Your task to perform on an android device: toggle data saver in the chrome app Image 0: 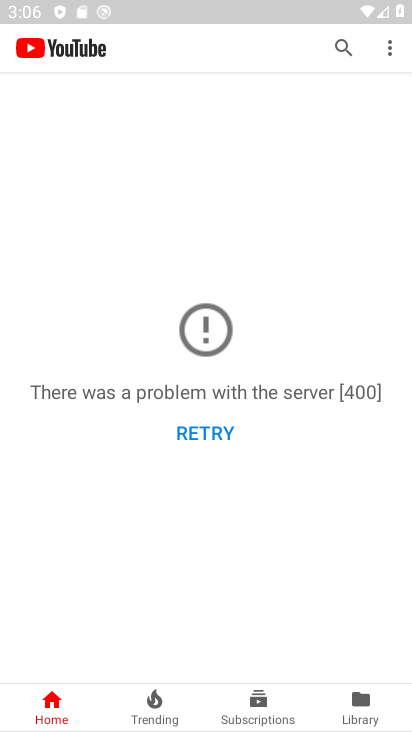
Step 0: press home button
Your task to perform on an android device: toggle data saver in the chrome app Image 1: 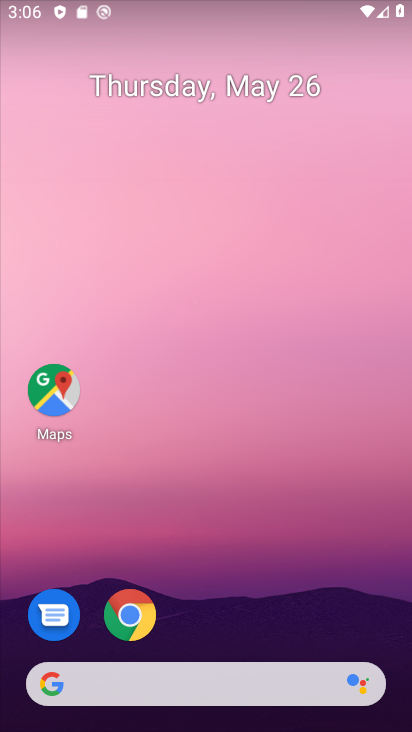
Step 1: click (128, 618)
Your task to perform on an android device: toggle data saver in the chrome app Image 2: 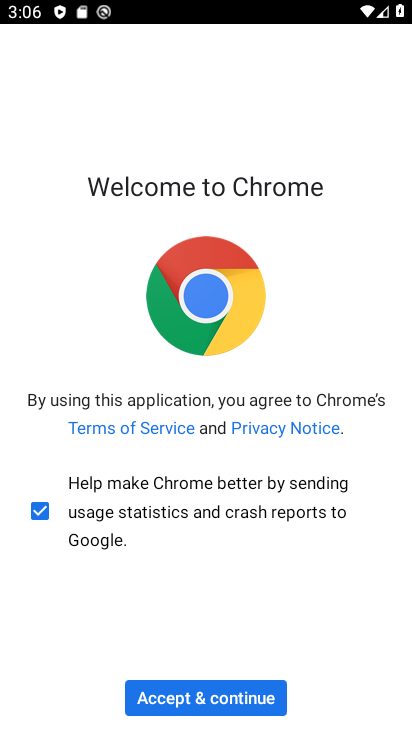
Step 2: click (250, 702)
Your task to perform on an android device: toggle data saver in the chrome app Image 3: 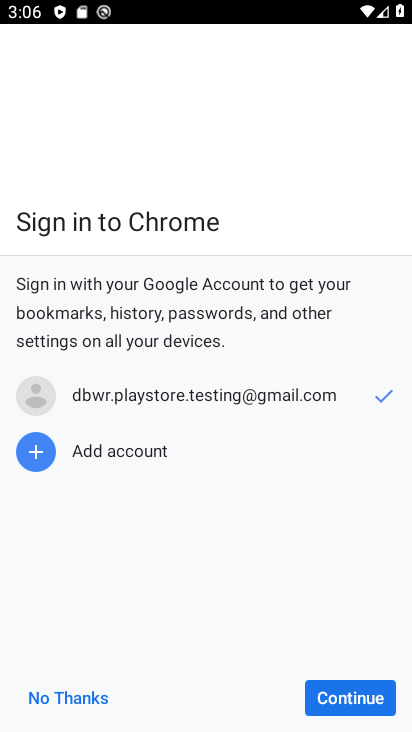
Step 3: click (346, 708)
Your task to perform on an android device: toggle data saver in the chrome app Image 4: 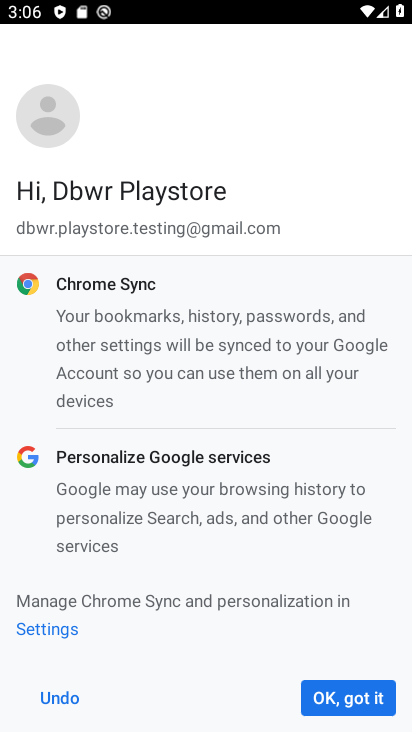
Step 4: click (370, 702)
Your task to perform on an android device: toggle data saver in the chrome app Image 5: 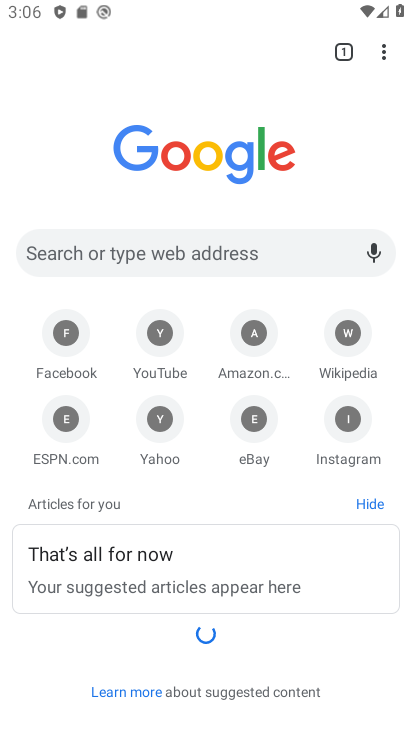
Step 5: click (383, 46)
Your task to perform on an android device: toggle data saver in the chrome app Image 6: 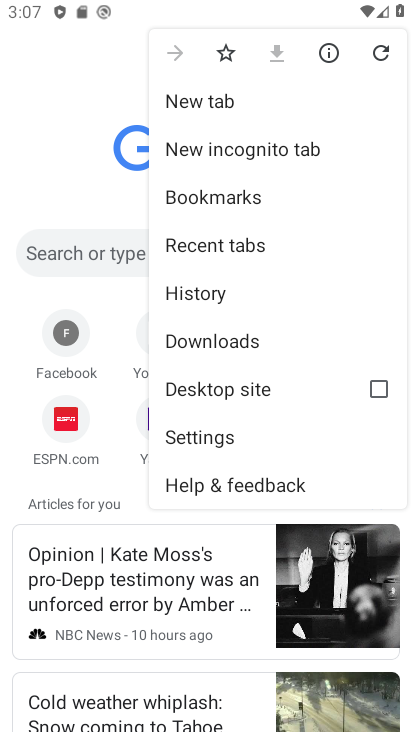
Step 6: click (279, 428)
Your task to perform on an android device: toggle data saver in the chrome app Image 7: 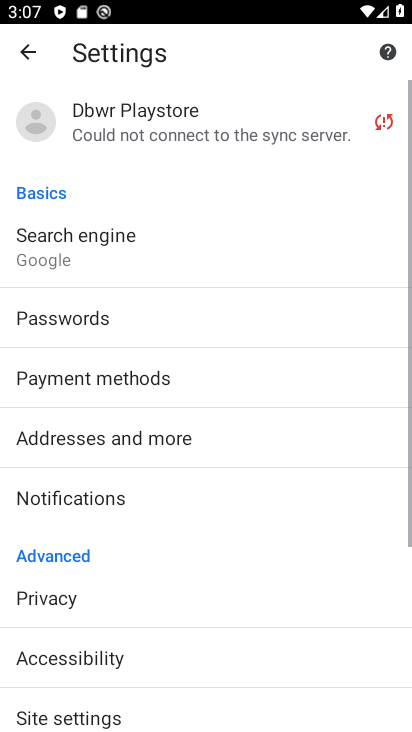
Step 7: drag from (278, 431) to (274, 169)
Your task to perform on an android device: toggle data saver in the chrome app Image 8: 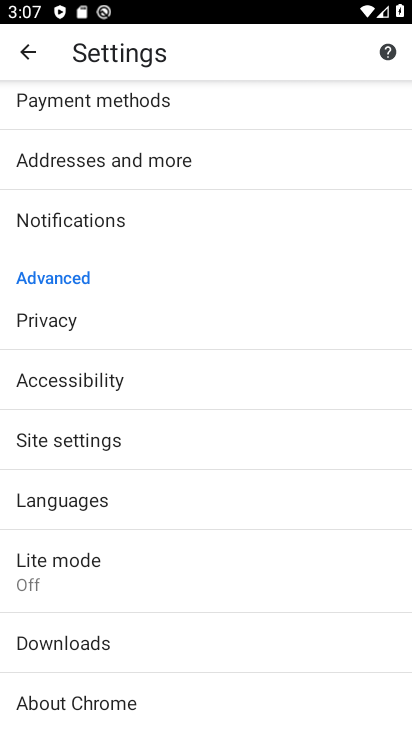
Step 8: drag from (218, 516) to (216, 556)
Your task to perform on an android device: toggle data saver in the chrome app Image 9: 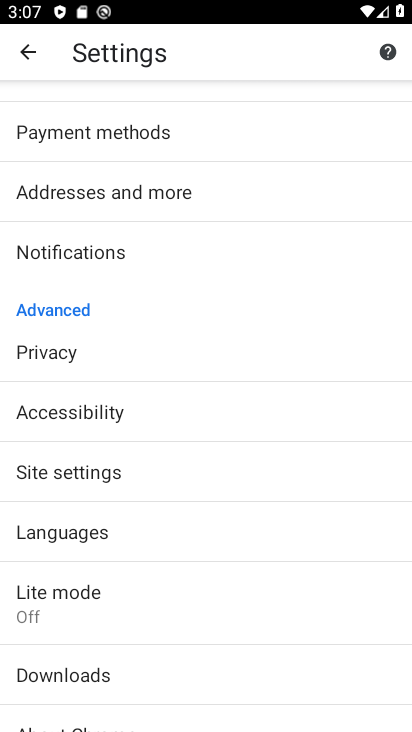
Step 9: click (210, 623)
Your task to perform on an android device: toggle data saver in the chrome app Image 10: 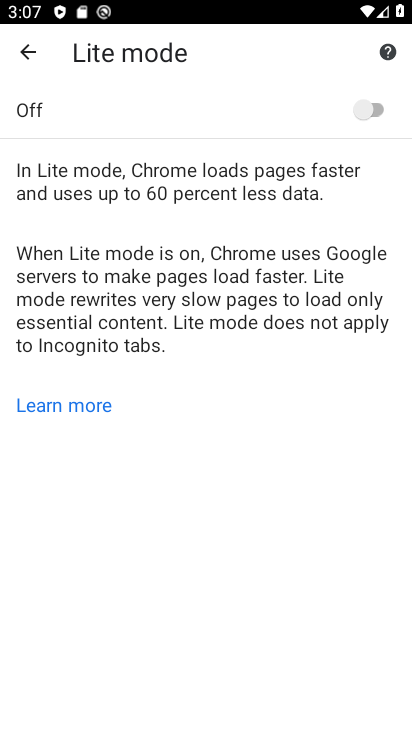
Step 10: click (366, 100)
Your task to perform on an android device: toggle data saver in the chrome app Image 11: 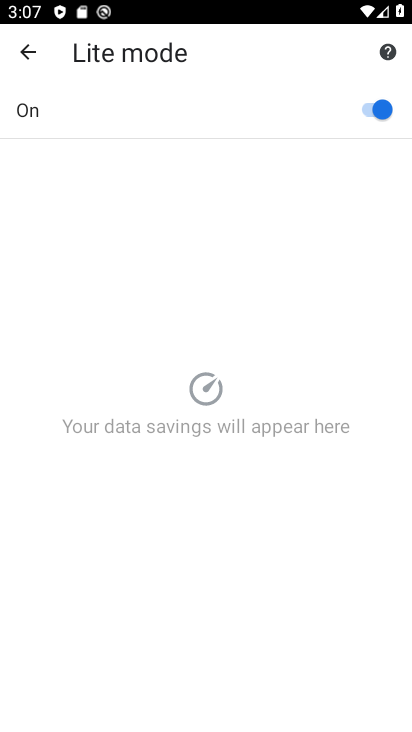
Step 11: task complete